Your task to perform on an android device: Go to eBay Image 0: 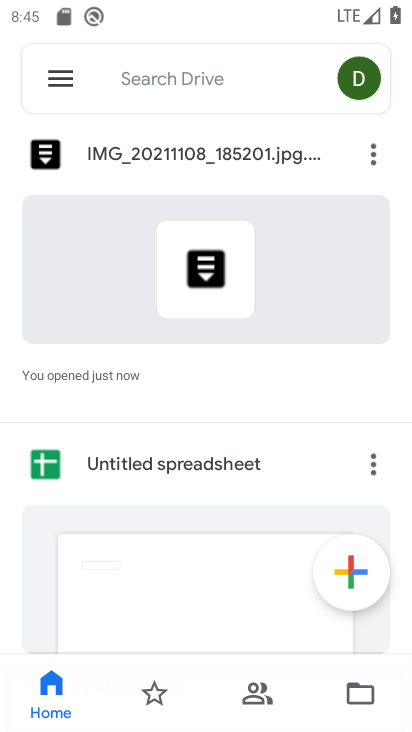
Step 0: drag from (217, 638) to (342, 267)
Your task to perform on an android device: Go to eBay Image 1: 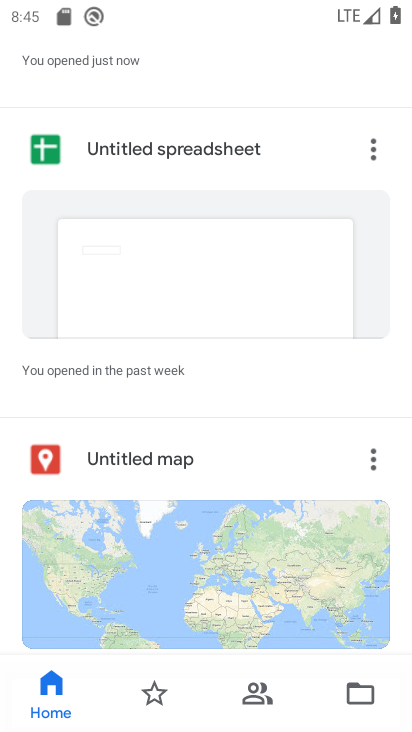
Step 1: press home button
Your task to perform on an android device: Go to eBay Image 2: 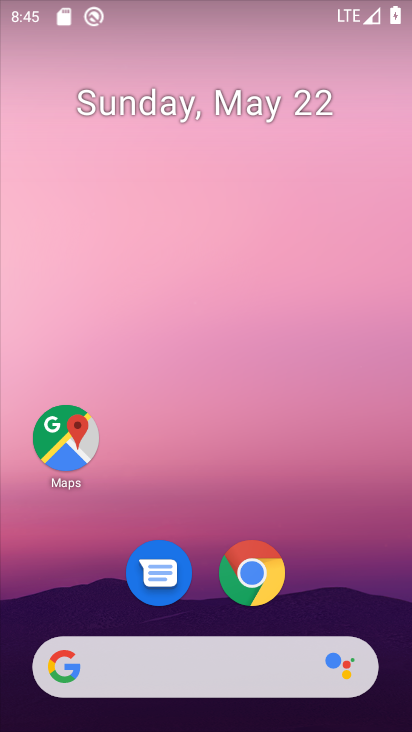
Step 2: click (196, 662)
Your task to perform on an android device: Go to eBay Image 3: 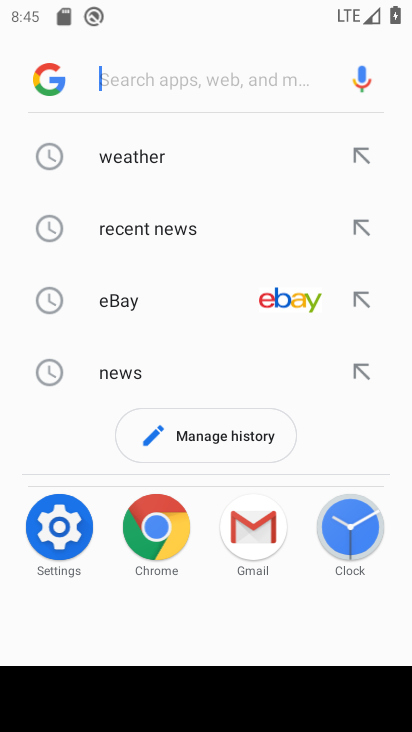
Step 3: click (174, 300)
Your task to perform on an android device: Go to eBay Image 4: 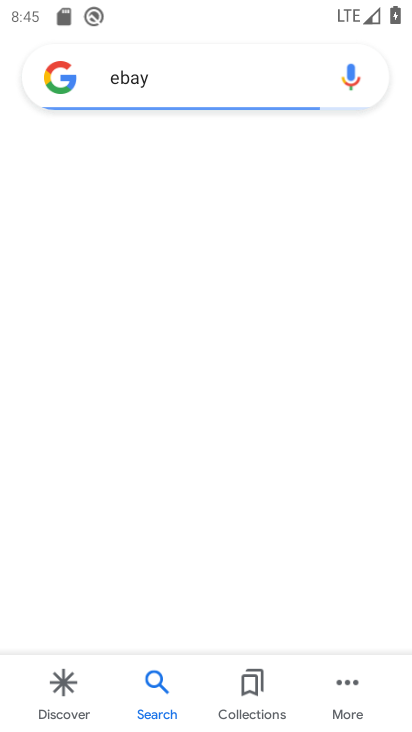
Step 4: task complete